Your task to perform on an android device: change the clock style Image 0: 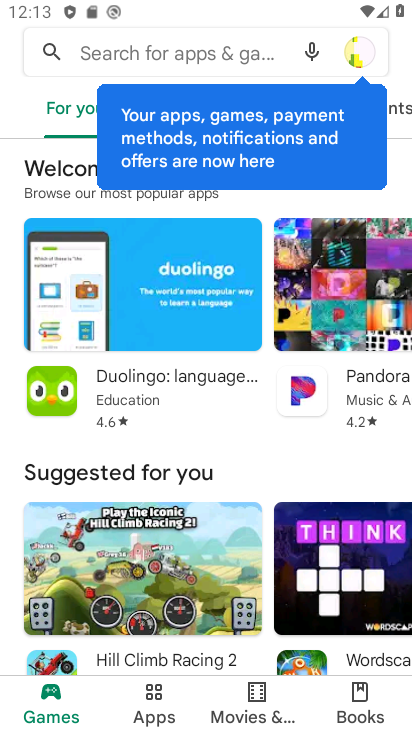
Step 0: press home button
Your task to perform on an android device: change the clock style Image 1: 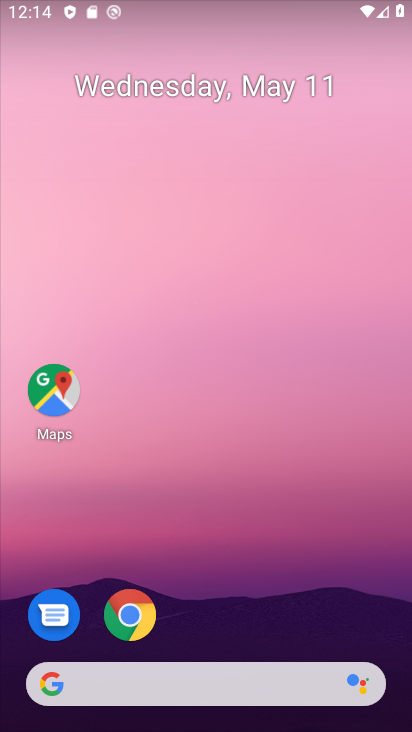
Step 1: drag from (245, 609) to (297, 261)
Your task to perform on an android device: change the clock style Image 2: 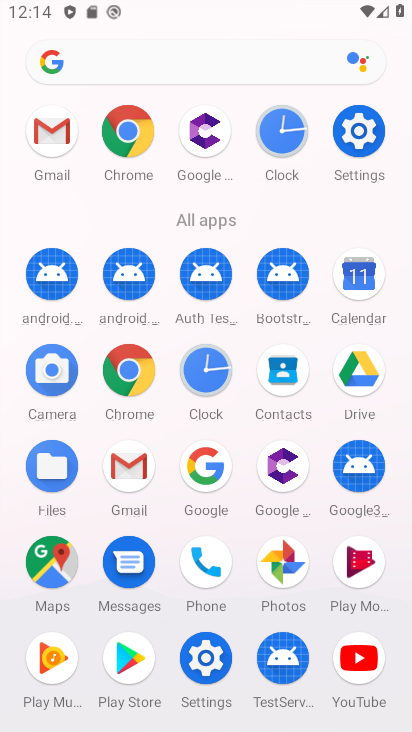
Step 2: click (195, 374)
Your task to perform on an android device: change the clock style Image 3: 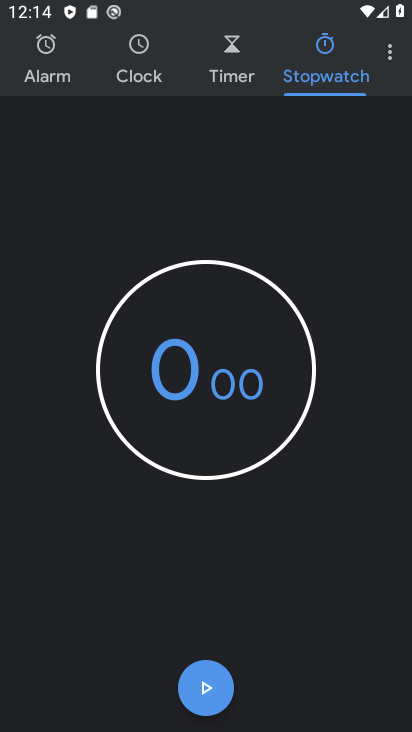
Step 3: click (380, 49)
Your task to perform on an android device: change the clock style Image 4: 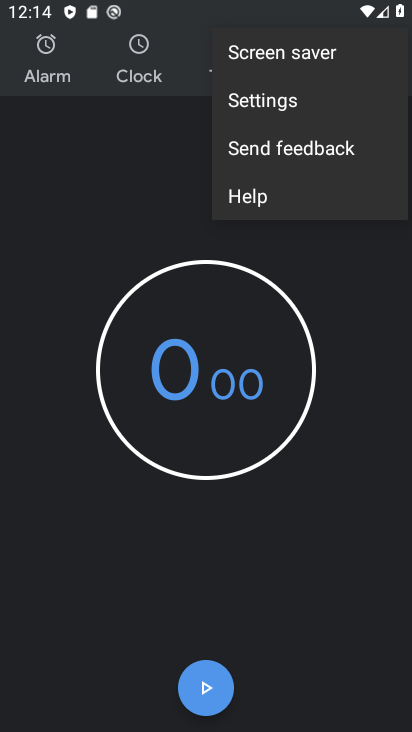
Step 4: click (332, 95)
Your task to perform on an android device: change the clock style Image 5: 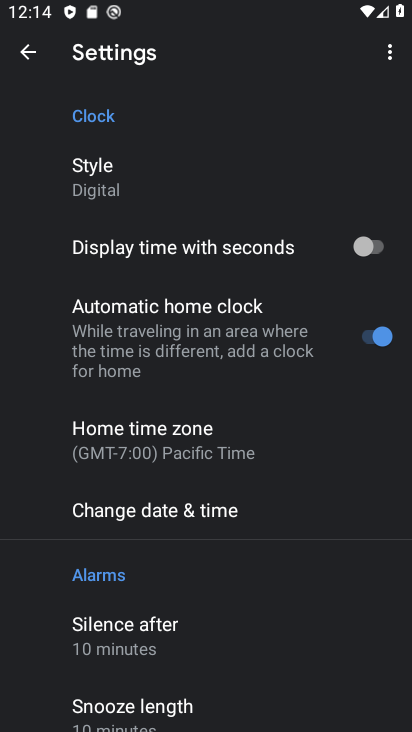
Step 5: click (174, 181)
Your task to perform on an android device: change the clock style Image 6: 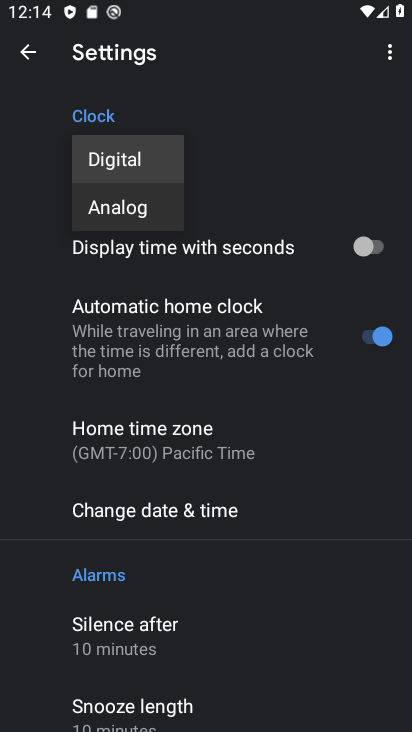
Step 6: click (162, 211)
Your task to perform on an android device: change the clock style Image 7: 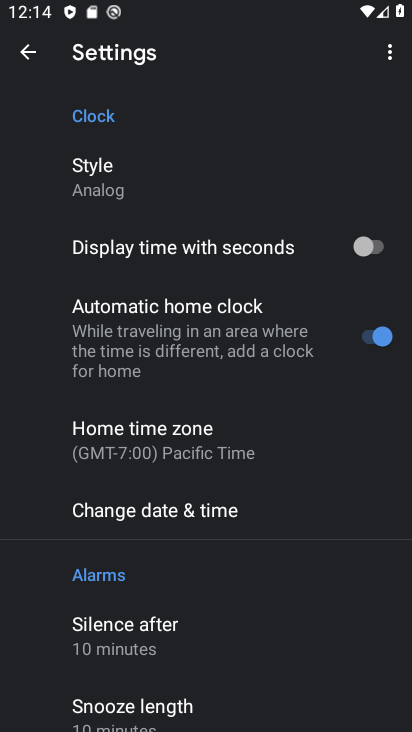
Step 7: task complete